Your task to perform on an android device: search for starred emails in the gmail app Image 0: 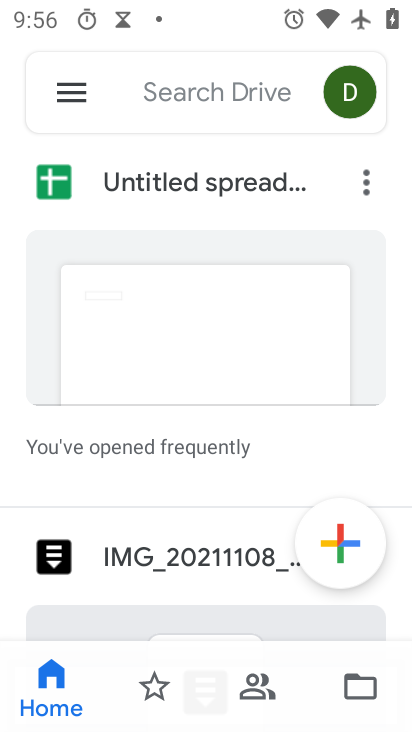
Step 0: press home button
Your task to perform on an android device: search for starred emails in the gmail app Image 1: 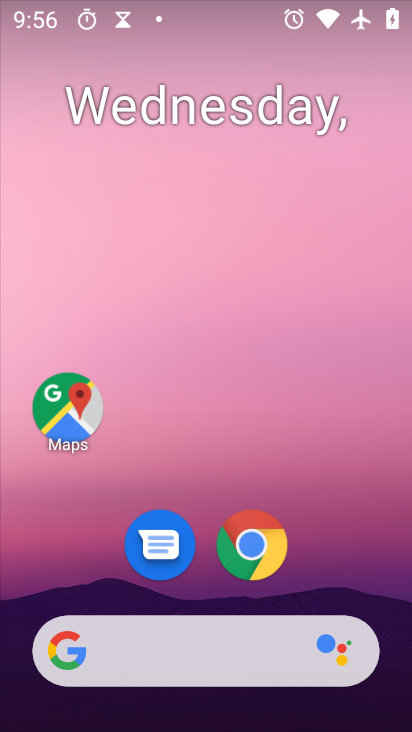
Step 1: drag from (164, 654) to (234, 131)
Your task to perform on an android device: search for starred emails in the gmail app Image 2: 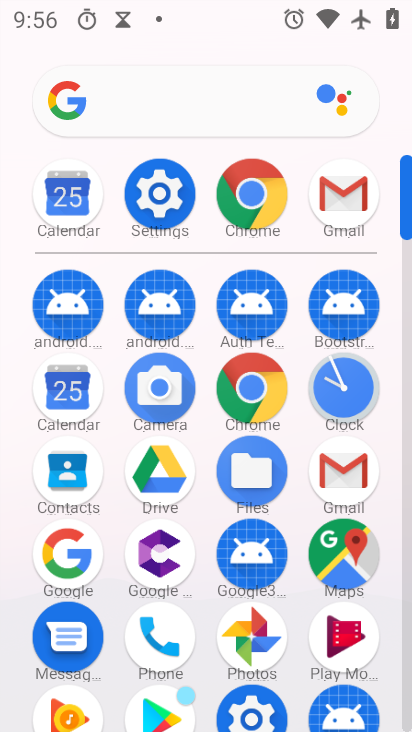
Step 2: click (347, 213)
Your task to perform on an android device: search for starred emails in the gmail app Image 3: 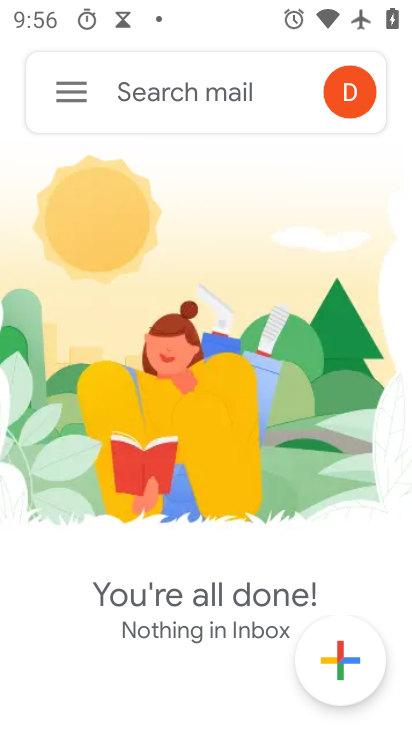
Step 3: click (75, 97)
Your task to perform on an android device: search for starred emails in the gmail app Image 4: 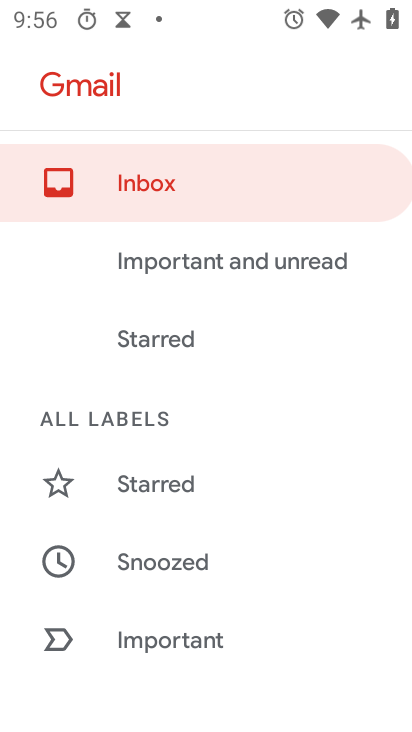
Step 4: click (172, 481)
Your task to perform on an android device: search for starred emails in the gmail app Image 5: 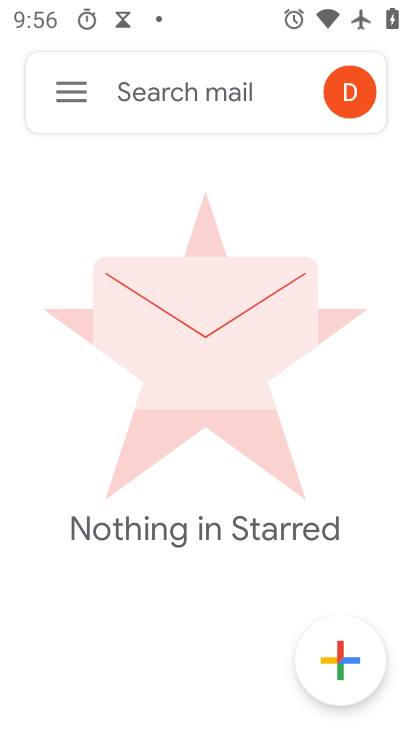
Step 5: task complete